Your task to perform on an android device: Go to display settings Image 0: 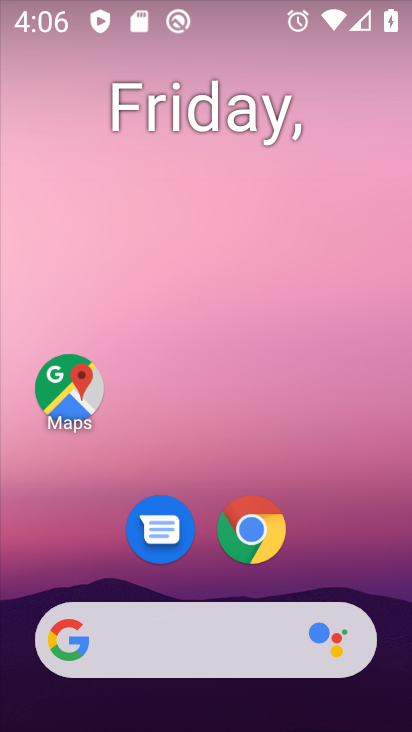
Step 0: drag from (97, 619) to (202, 179)
Your task to perform on an android device: Go to display settings Image 1: 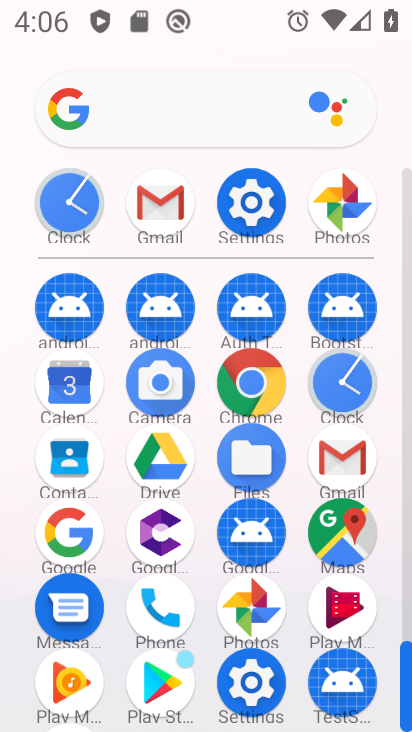
Step 1: click (251, 686)
Your task to perform on an android device: Go to display settings Image 2: 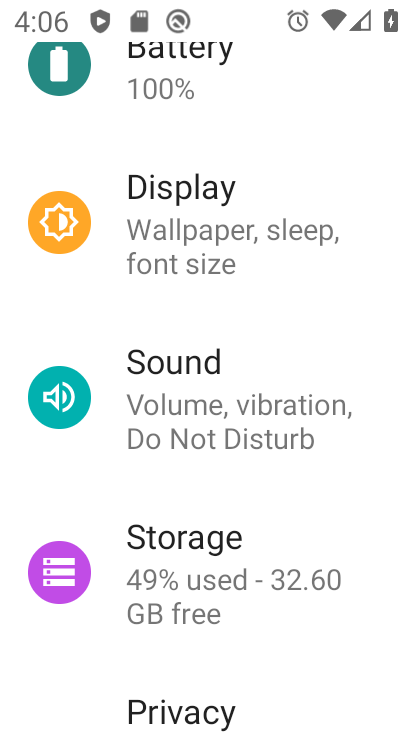
Step 2: click (271, 259)
Your task to perform on an android device: Go to display settings Image 3: 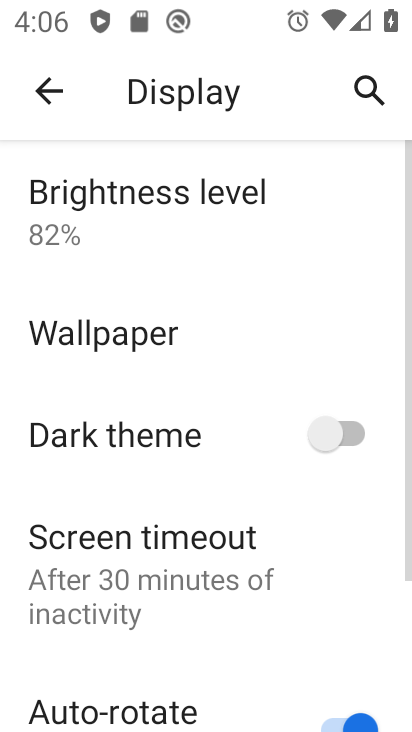
Step 3: task complete